Your task to perform on an android device: make emails show in primary in the gmail app Image 0: 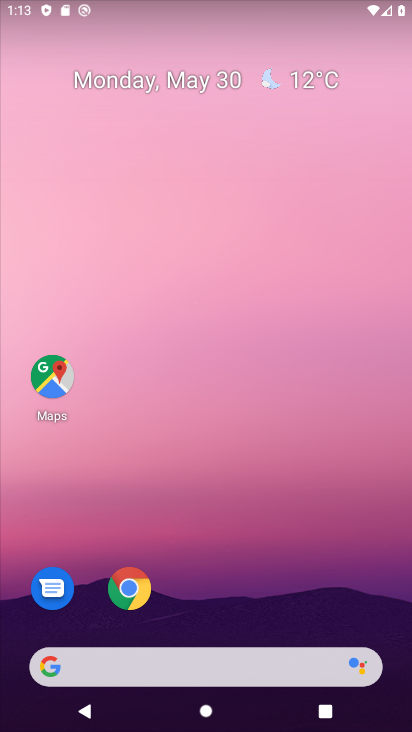
Step 0: drag from (265, 587) to (264, 182)
Your task to perform on an android device: make emails show in primary in the gmail app Image 1: 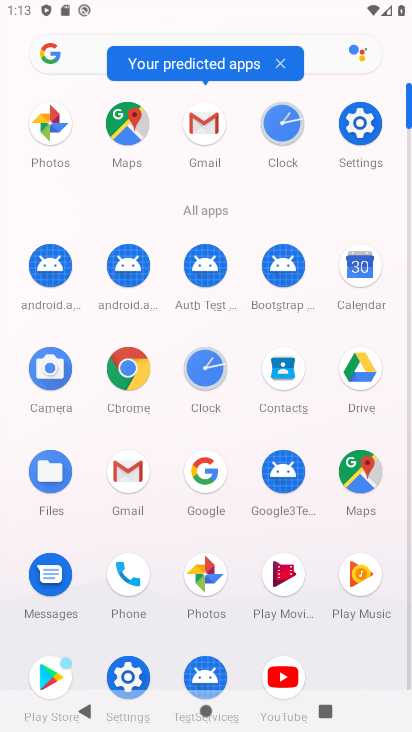
Step 1: click (136, 487)
Your task to perform on an android device: make emails show in primary in the gmail app Image 2: 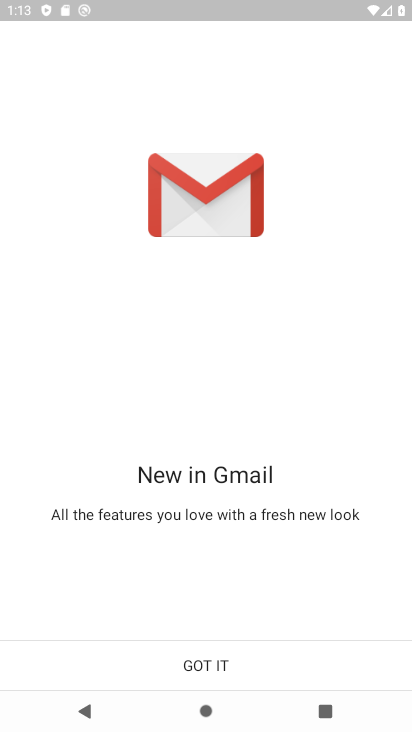
Step 2: click (210, 661)
Your task to perform on an android device: make emails show in primary in the gmail app Image 3: 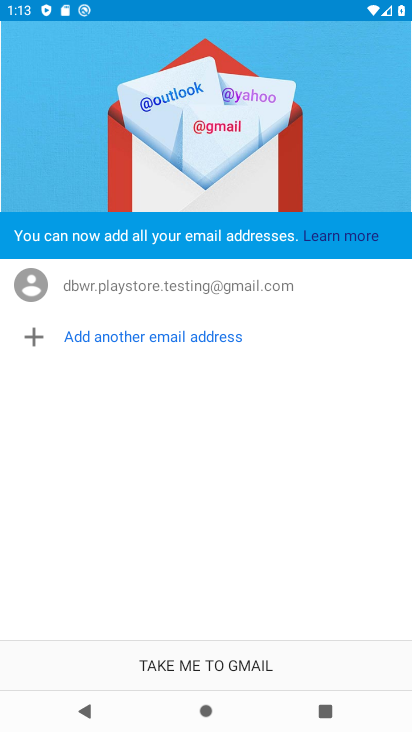
Step 3: click (243, 669)
Your task to perform on an android device: make emails show in primary in the gmail app Image 4: 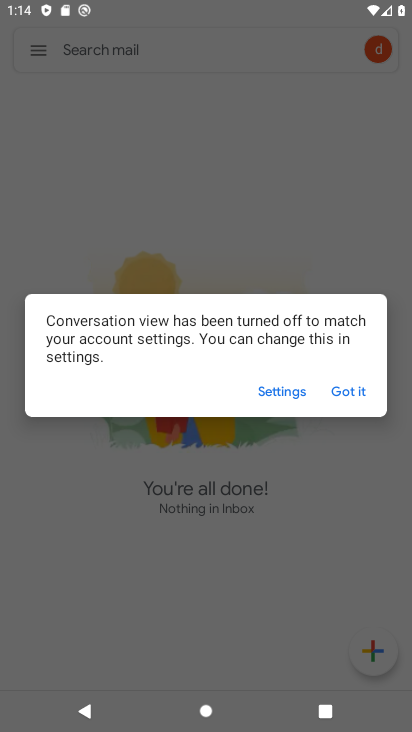
Step 4: click (349, 391)
Your task to perform on an android device: make emails show in primary in the gmail app Image 5: 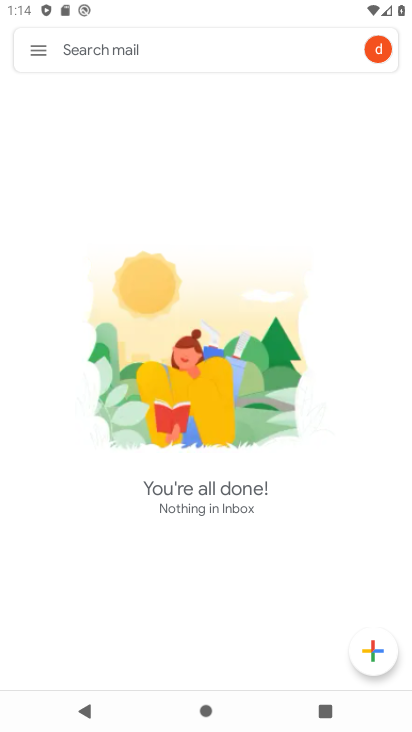
Step 5: click (31, 59)
Your task to perform on an android device: make emails show in primary in the gmail app Image 6: 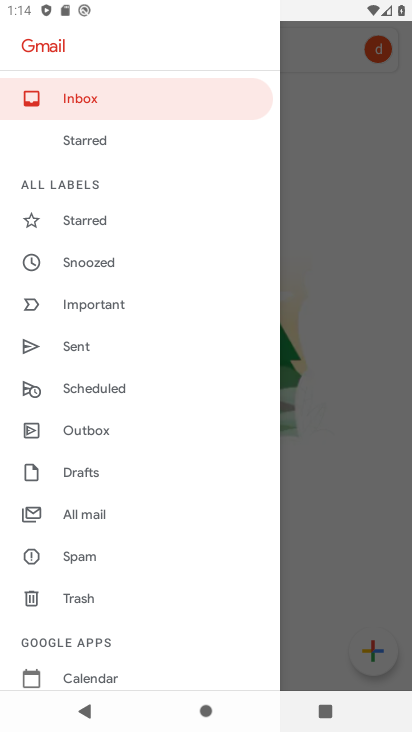
Step 6: click (105, 511)
Your task to perform on an android device: make emails show in primary in the gmail app Image 7: 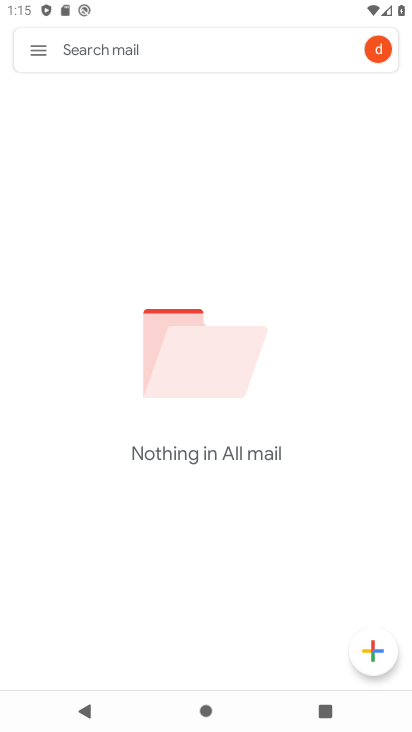
Step 7: task complete